Your task to perform on an android device: check storage Image 0: 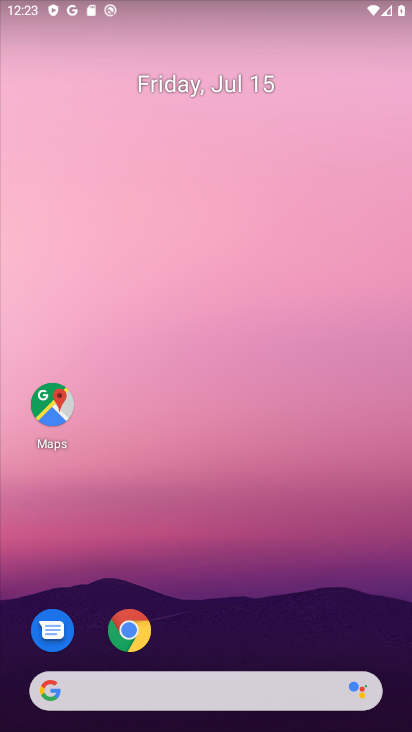
Step 0: drag from (387, 631) to (192, 124)
Your task to perform on an android device: check storage Image 1: 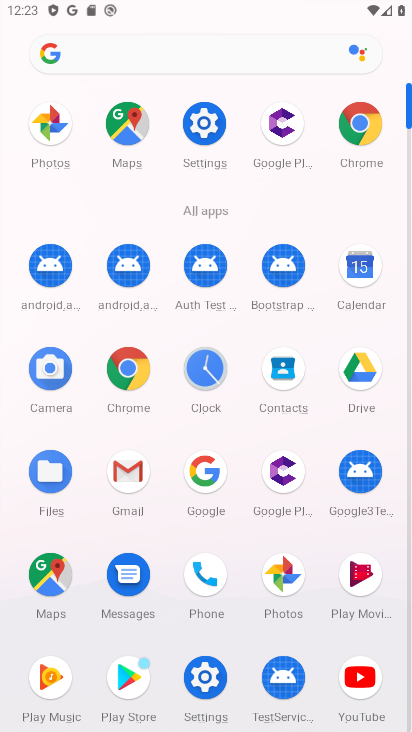
Step 1: click (206, 138)
Your task to perform on an android device: check storage Image 2: 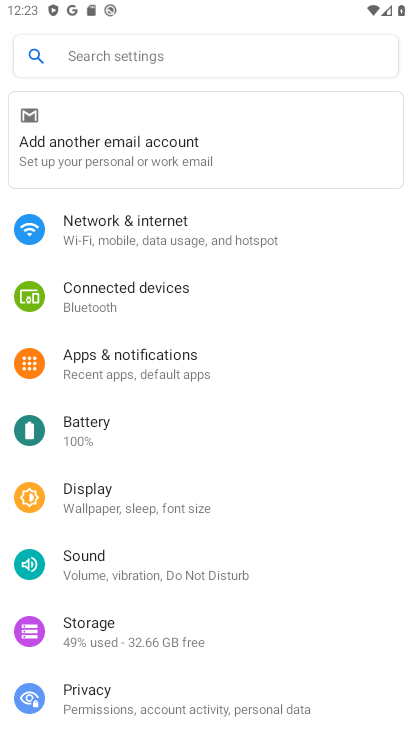
Step 2: drag from (284, 565) to (142, 363)
Your task to perform on an android device: check storage Image 3: 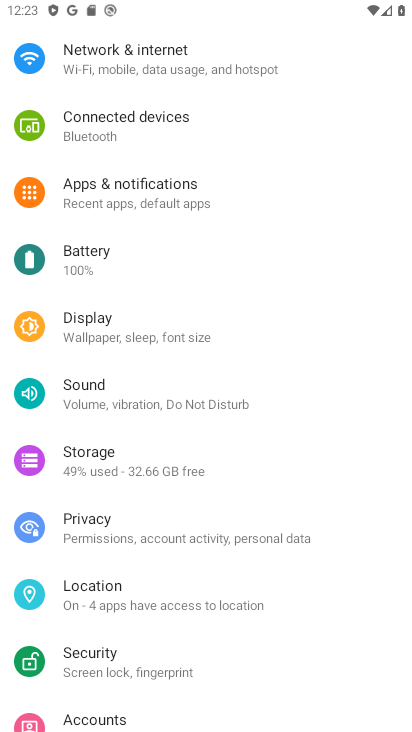
Step 3: click (76, 454)
Your task to perform on an android device: check storage Image 4: 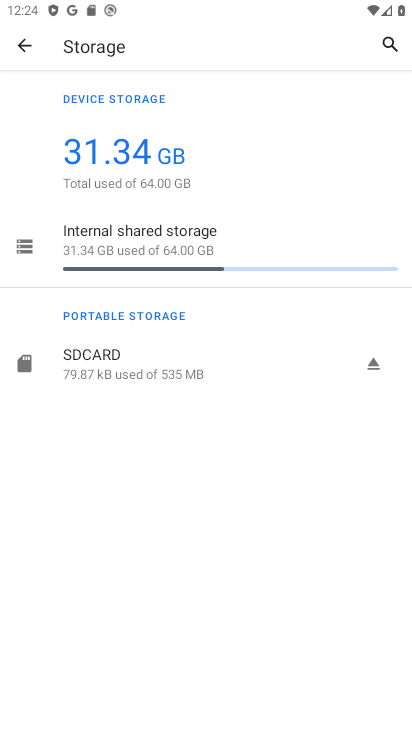
Step 4: task complete